Your task to perform on an android device: change alarm snooze length Image 0: 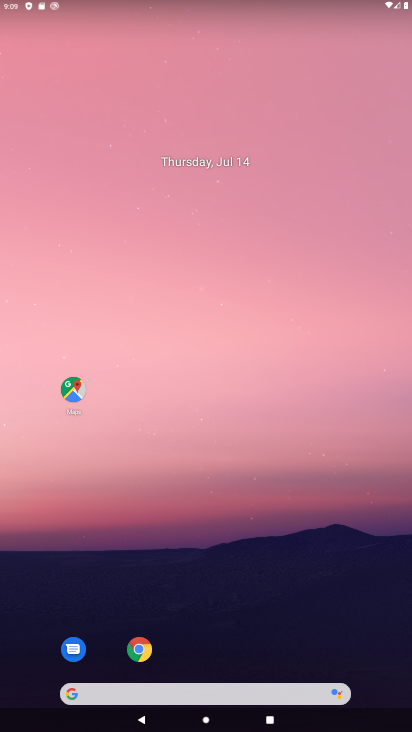
Step 0: drag from (200, 637) to (218, 122)
Your task to perform on an android device: change alarm snooze length Image 1: 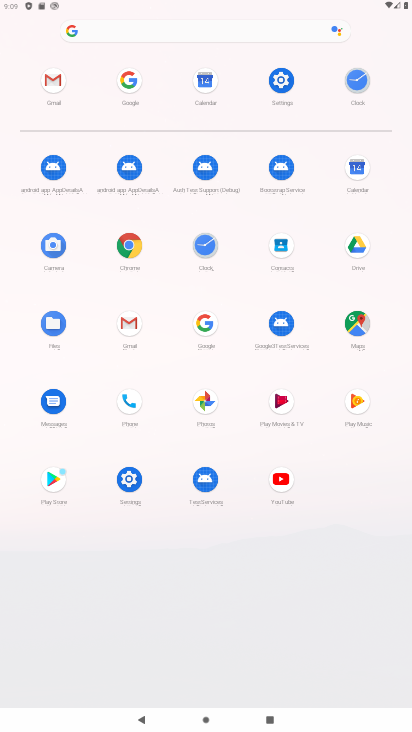
Step 1: click (360, 93)
Your task to perform on an android device: change alarm snooze length Image 2: 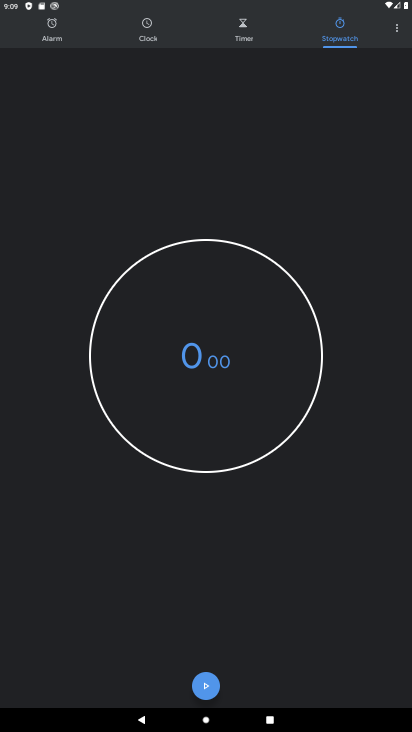
Step 2: click (391, 26)
Your task to perform on an android device: change alarm snooze length Image 3: 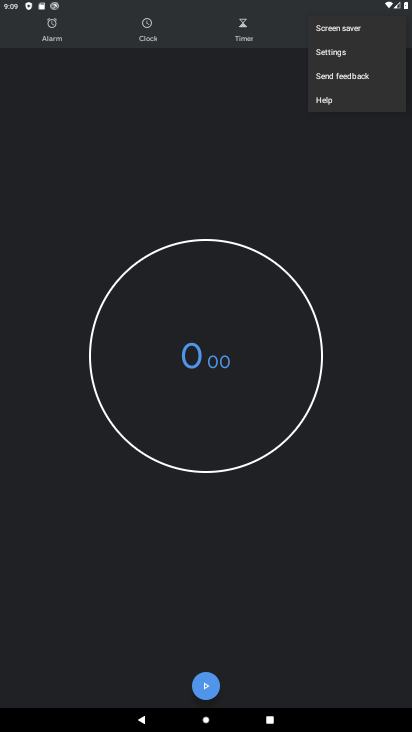
Step 3: click (364, 46)
Your task to perform on an android device: change alarm snooze length Image 4: 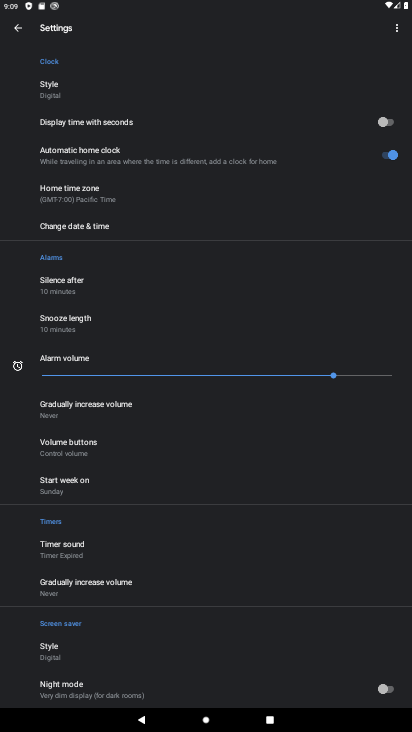
Step 4: click (58, 334)
Your task to perform on an android device: change alarm snooze length Image 5: 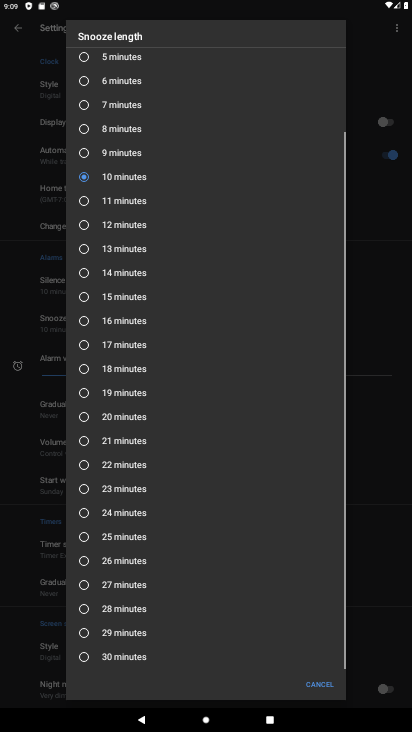
Step 5: click (162, 378)
Your task to perform on an android device: change alarm snooze length Image 6: 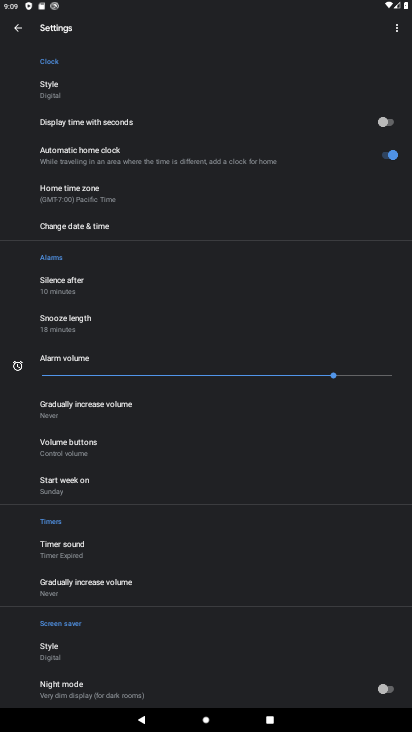
Step 6: task complete